Your task to perform on an android device: Open Android settings Image 0: 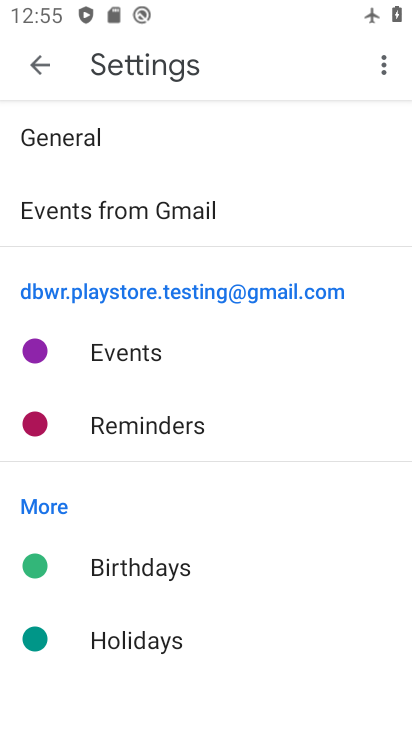
Step 0: press back button
Your task to perform on an android device: Open Android settings Image 1: 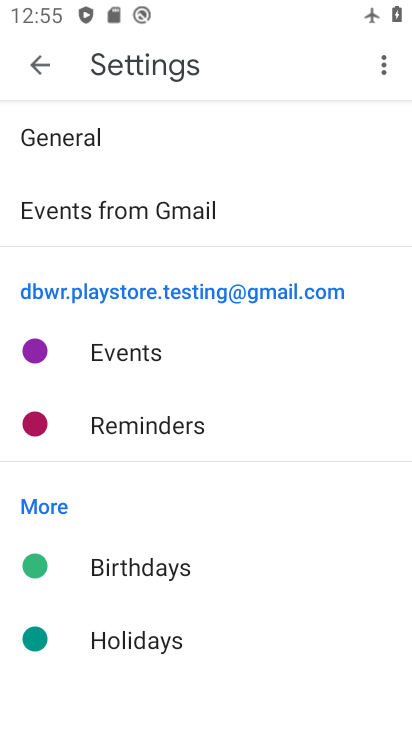
Step 1: press back button
Your task to perform on an android device: Open Android settings Image 2: 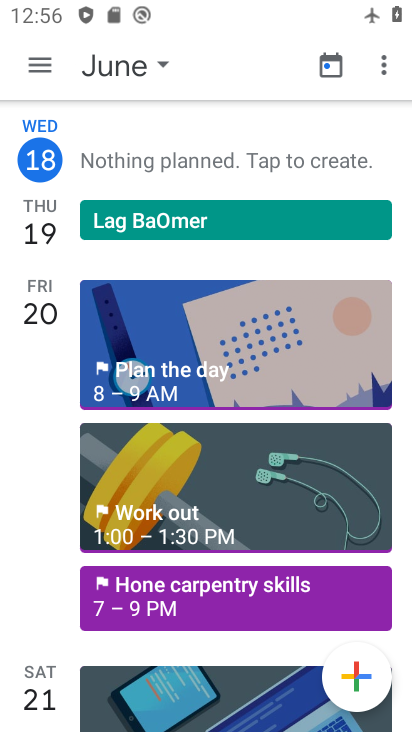
Step 2: press back button
Your task to perform on an android device: Open Android settings Image 3: 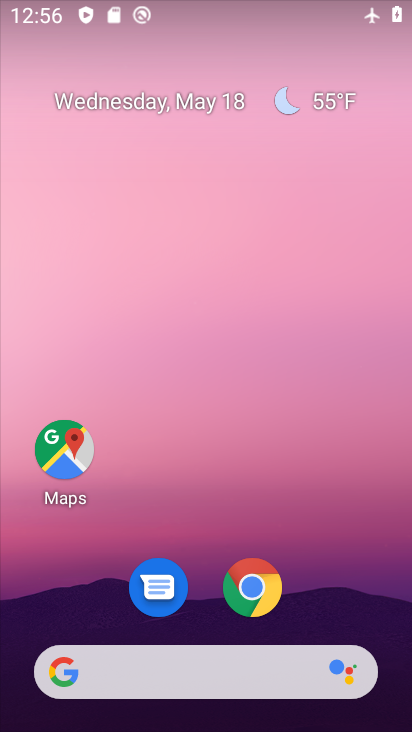
Step 3: drag from (200, 611) to (304, 6)
Your task to perform on an android device: Open Android settings Image 4: 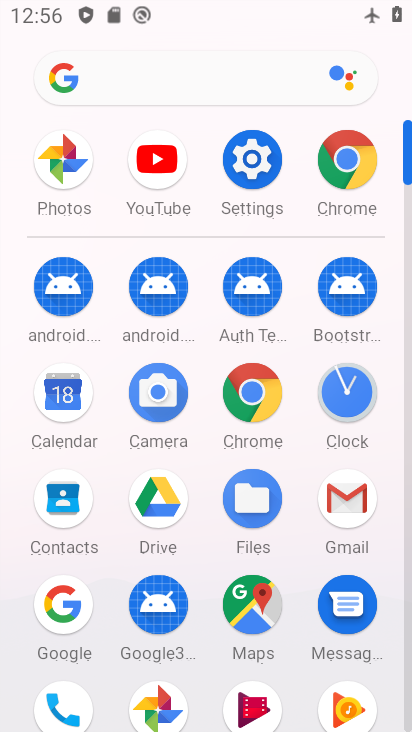
Step 4: click (254, 180)
Your task to perform on an android device: Open Android settings Image 5: 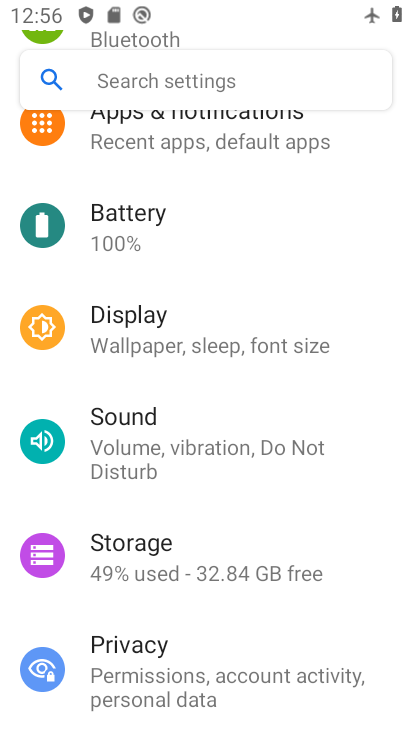
Step 5: drag from (195, 654) to (329, 71)
Your task to perform on an android device: Open Android settings Image 6: 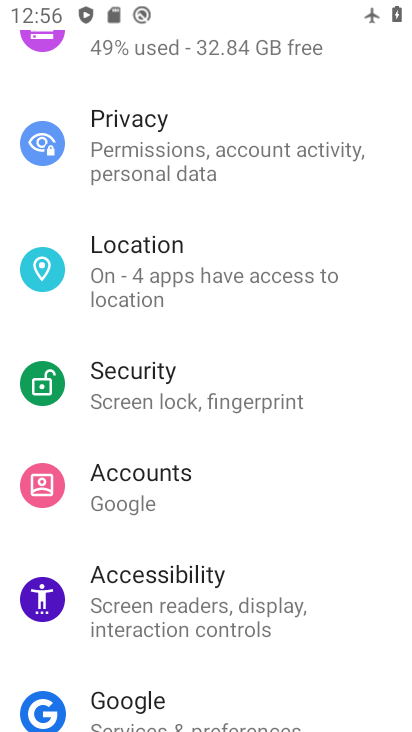
Step 6: drag from (175, 624) to (296, 36)
Your task to perform on an android device: Open Android settings Image 7: 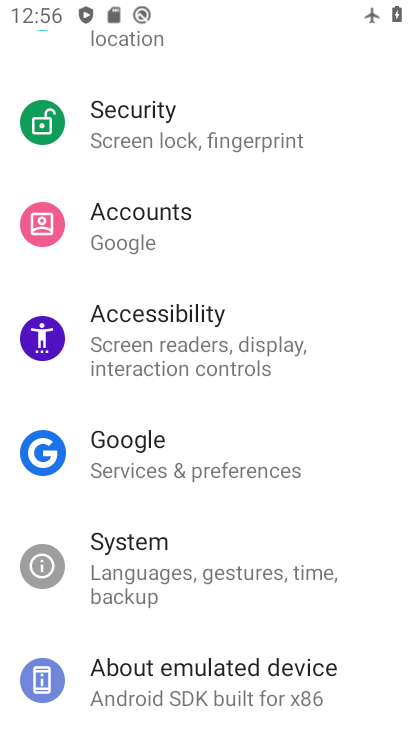
Step 7: click (151, 690)
Your task to perform on an android device: Open Android settings Image 8: 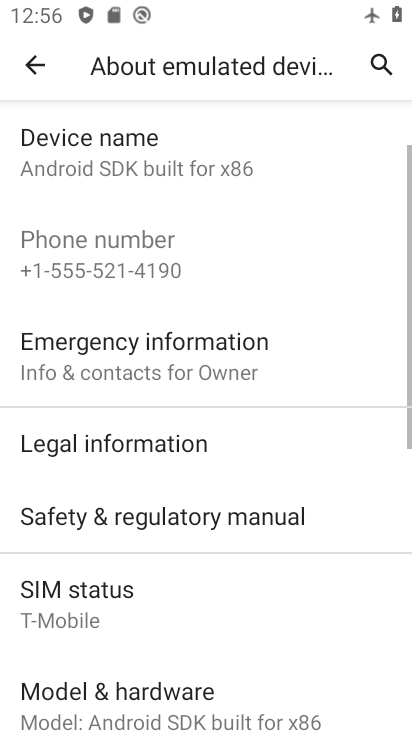
Step 8: drag from (161, 686) to (319, 83)
Your task to perform on an android device: Open Android settings Image 9: 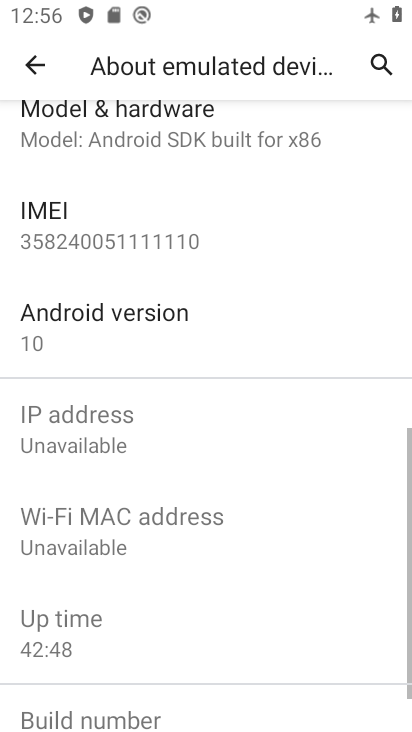
Step 9: click (86, 319)
Your task to perform on an android device: Open Android settings Image 10: 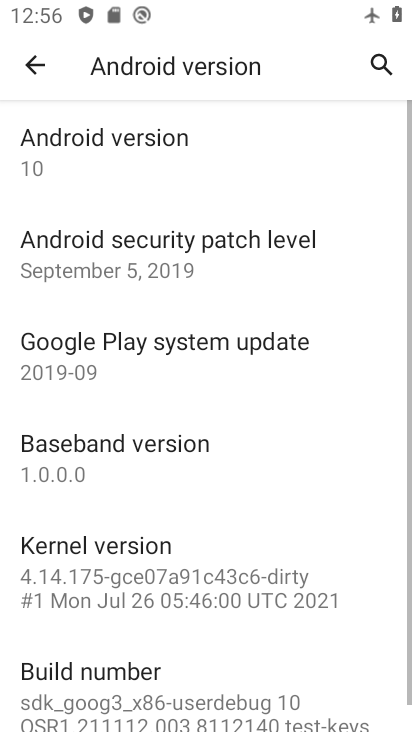
Step 10: task complete